Your task to perform on an android device: Open calendar and show me the fourth week of next month Image 0: 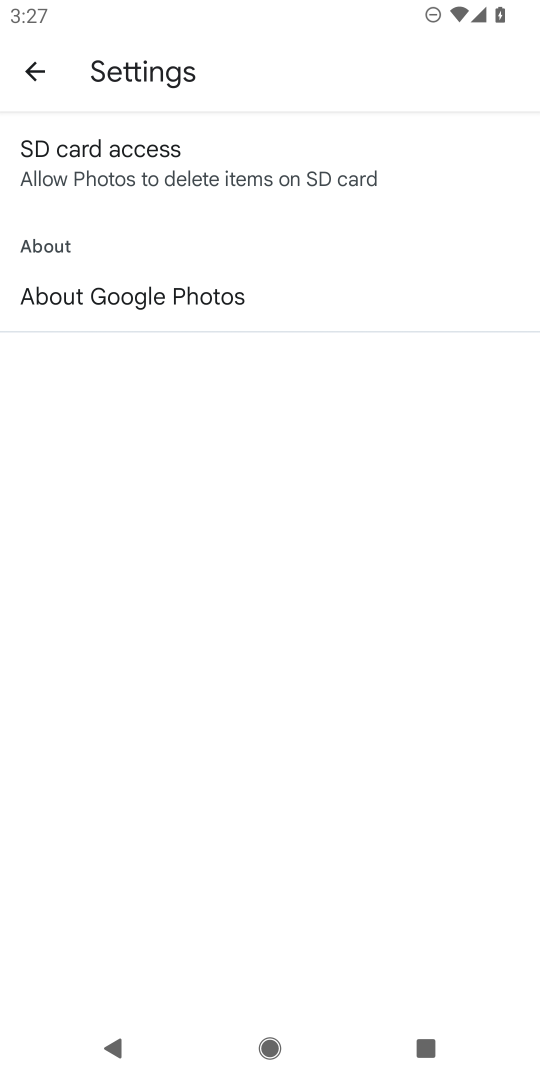
Step 0: press home button
Your task to perform on an android device: Open calendar and show me the fourth week of next month Image 1: 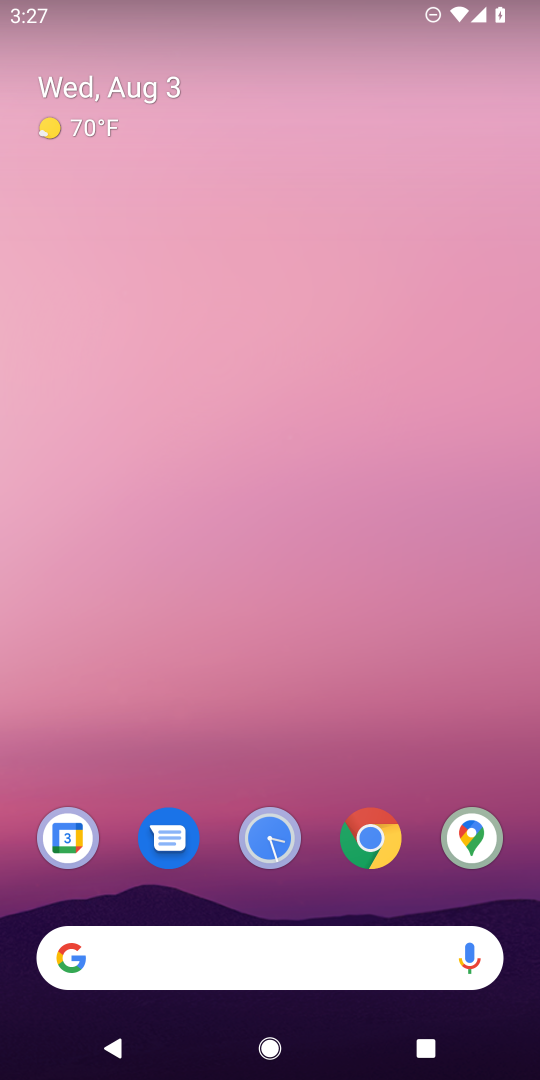
Step 1: click (72, 835)
Your task to perform on an android device: Open calendar and show me the fourth week of next month Image 2: 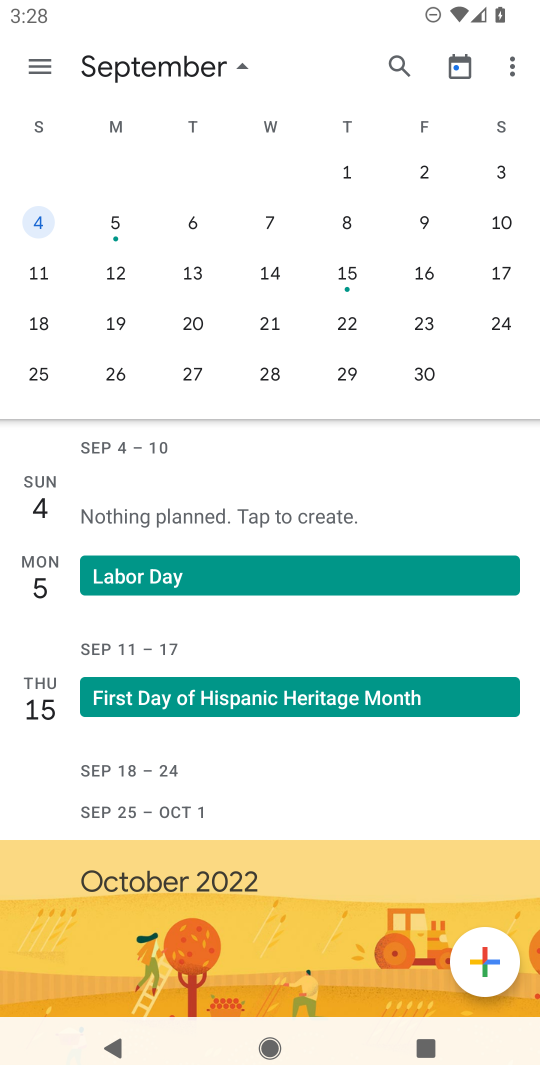
Step 2: click (41, 324)
Your task to perform on an android device: Open calendar and show me the fourth week of next month Image 3: 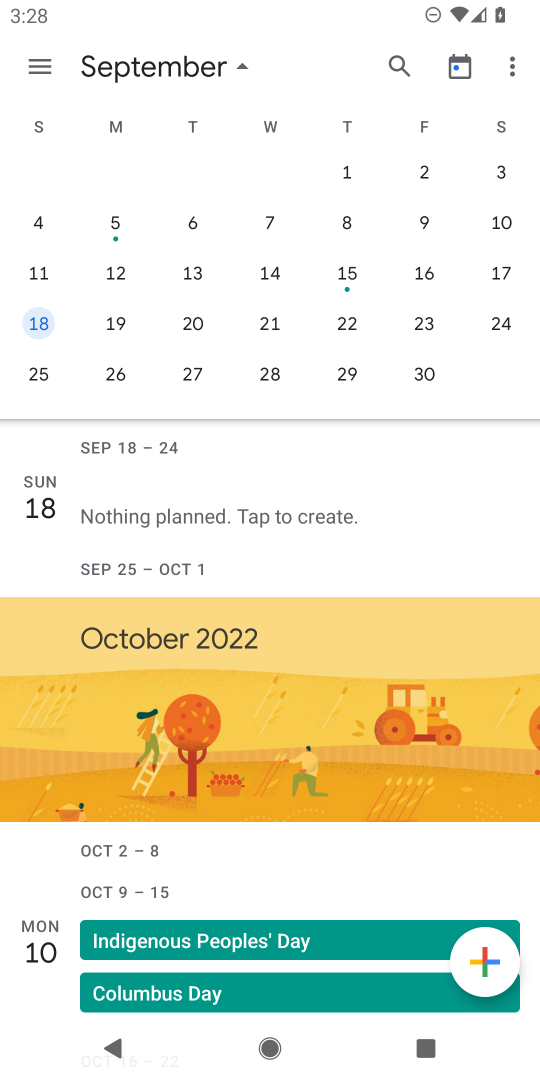
Step 3: task complete